Your task to perform on an android device: toggle data saver in the chrome app Image 0: 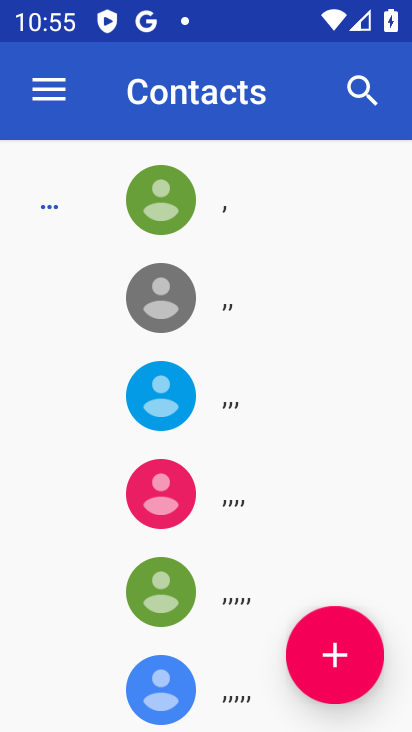
Step 0: press home button
Your task to perform on an android device: toggle data saver in the chrome app Image 1: 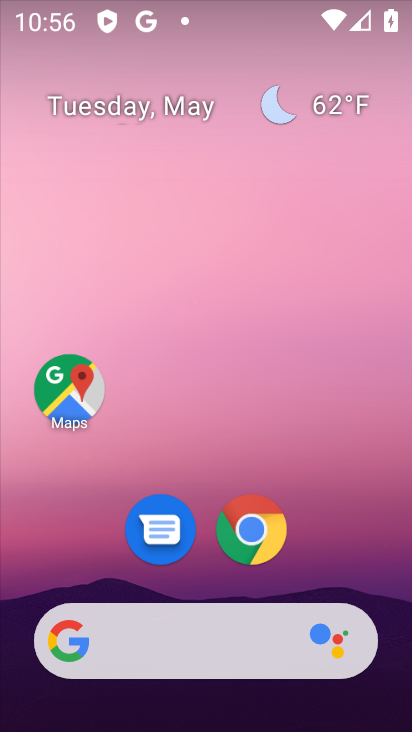
Step 1: click (230, 526)
Your task to perform on an android device: toggle data saver in the chrome app Image 2: 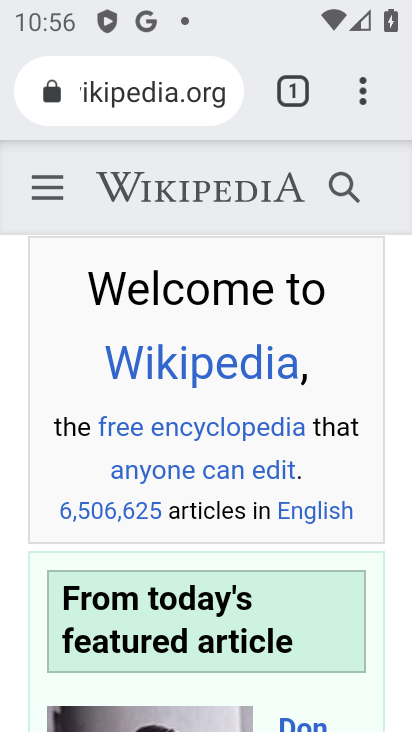
Step 2: click (363, 94)
Your task to perform on an android device: toggle data saver in the chrome app Image 3: 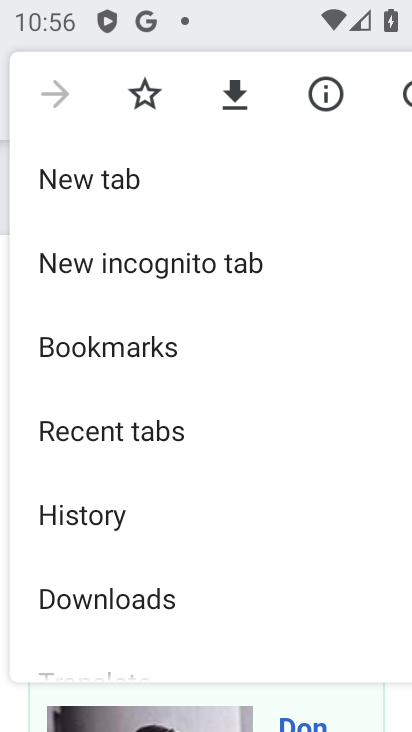
Step 3: drag from (254, 592) to (285, 298)
Your task to perform on an android device: toggle data saver in the chrome app Image 4: 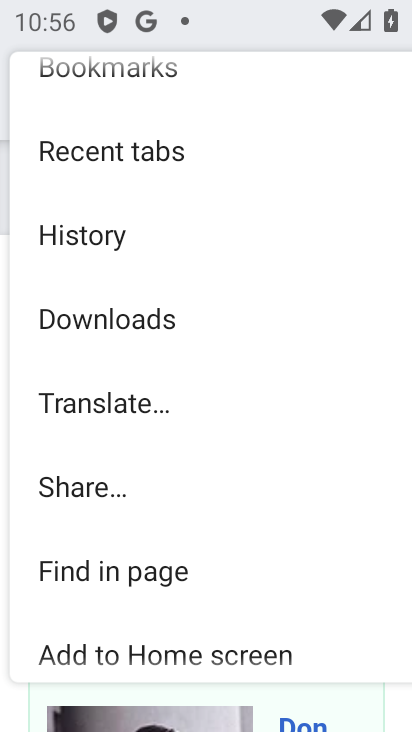
Step 4: drag from (225, 578) to (253, 250)
Your task to perform on an android device: toggle data saver in the chrome app Image 5: 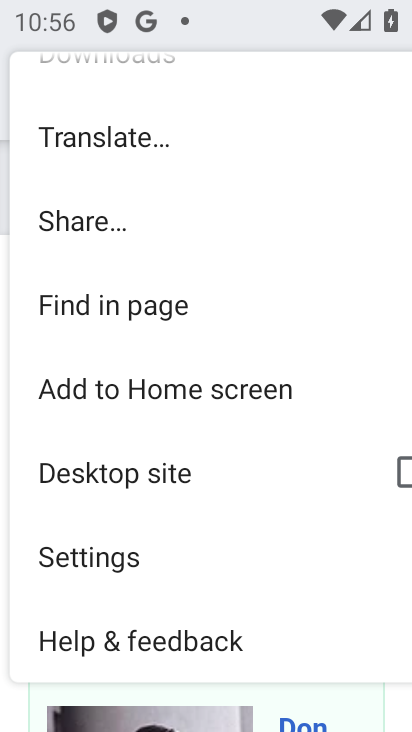
Step 5: click (117, 569)
Your task to perform on an android device: toggle data saver in the chrome app Image 6: 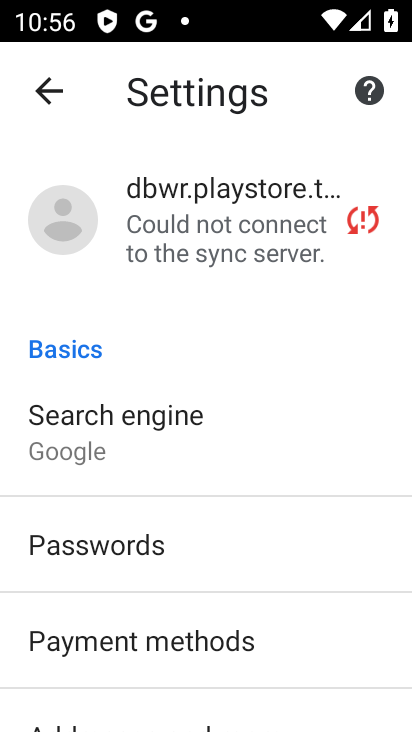
Step 6: drag from (291, 666) to (315, 205)
Your task to perform on an android device: toggle data saver in the chrome app Image 7: 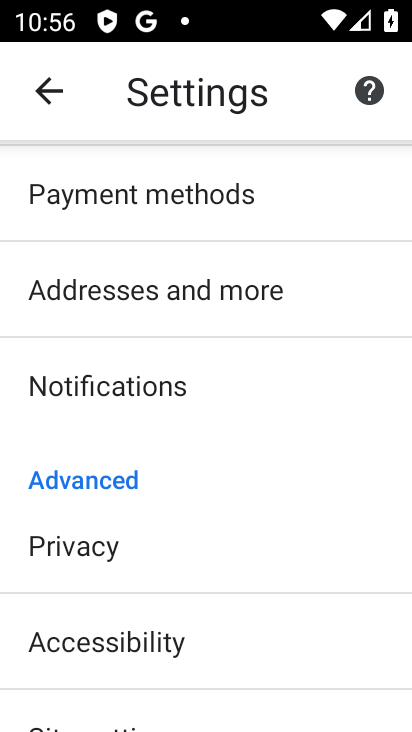
Step 7: drag from (252, 593) to (278, 204)
Your task to perform on an android device: toggle data saver in the chrome app Image 8: 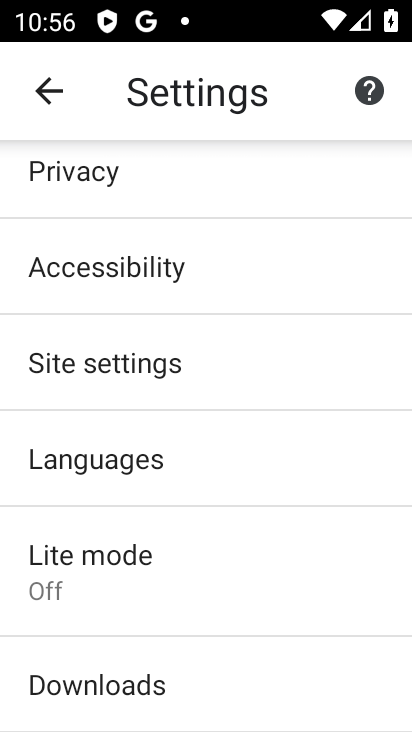
Step 8: click (103, 582)
Your task to perform on an android device: toggle data saver in the chrome app Image 9: 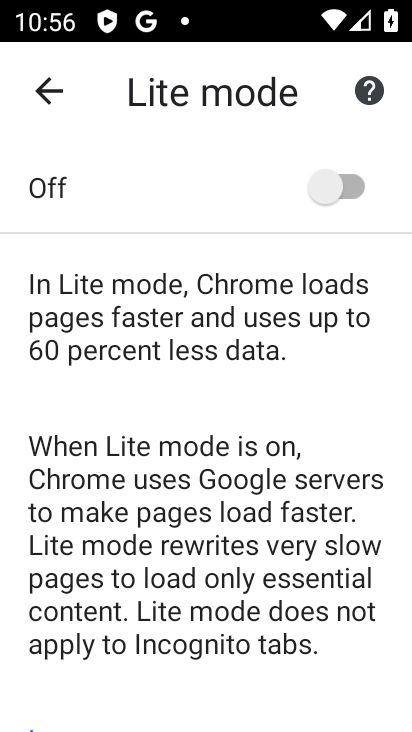
Step 9: click (351, 197)
Your task to perform on an android device: toggle data saver in the chrome app Image 10: 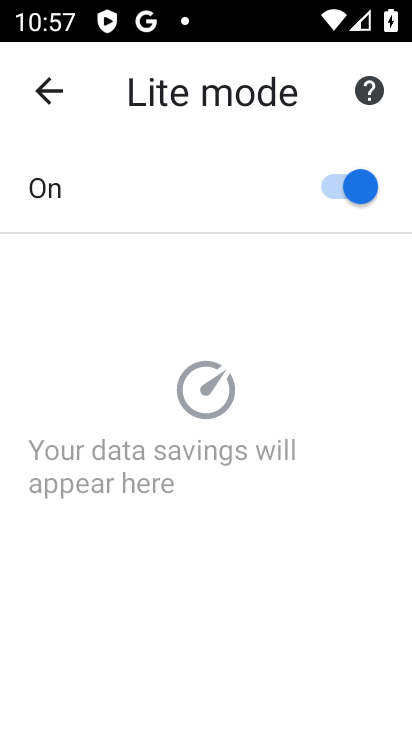
Step 10: task complete